Your task to perform on an android device: install app "Cash App" Image 0: 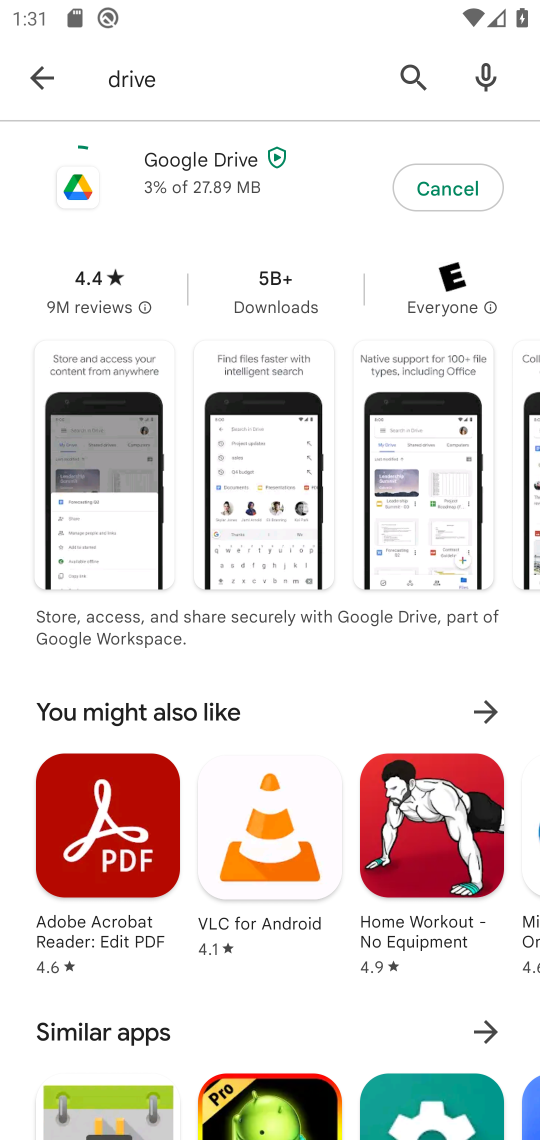
Step 0: click (407, 84)
Your task to perform on an android device: install app "Cash App" Image 1: 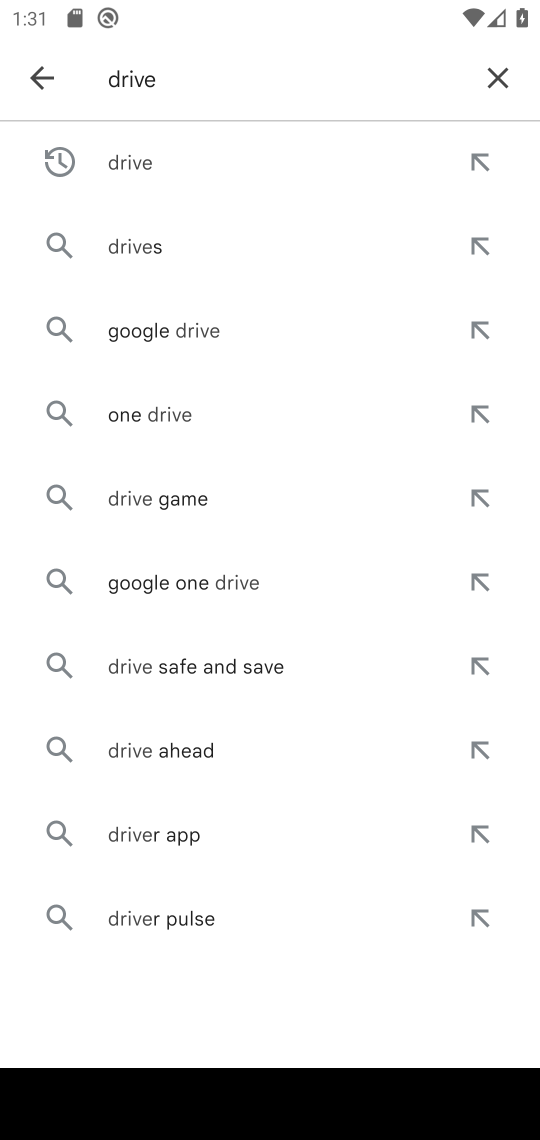
Step 1: click (506, 85)
Your task to perform on an android device: install app "Cash App" Image 2: 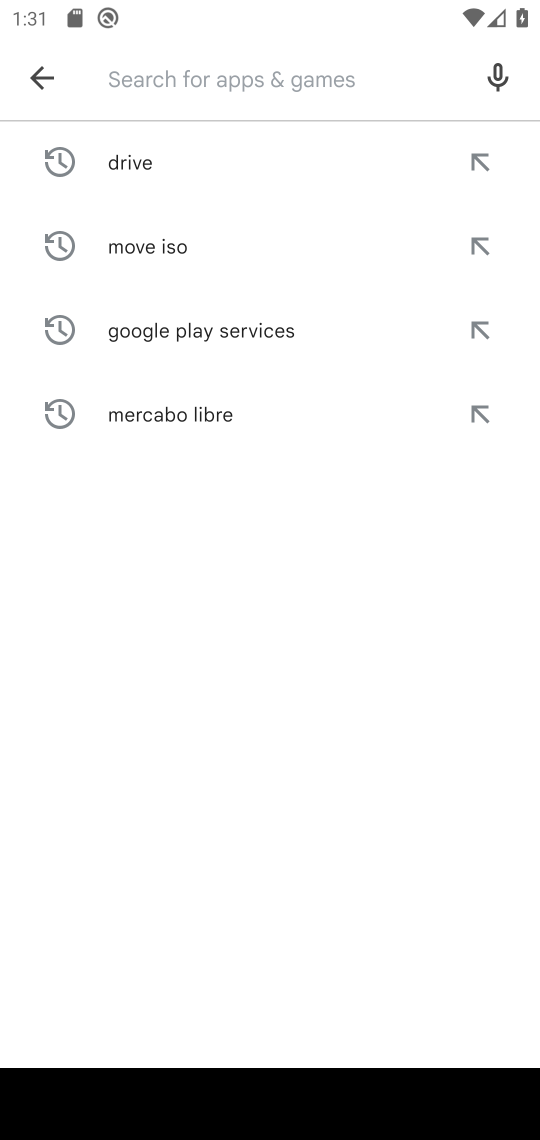
Step 2: type "cash"
Your task to perform on an android device: install app "Cash App" Image 3: 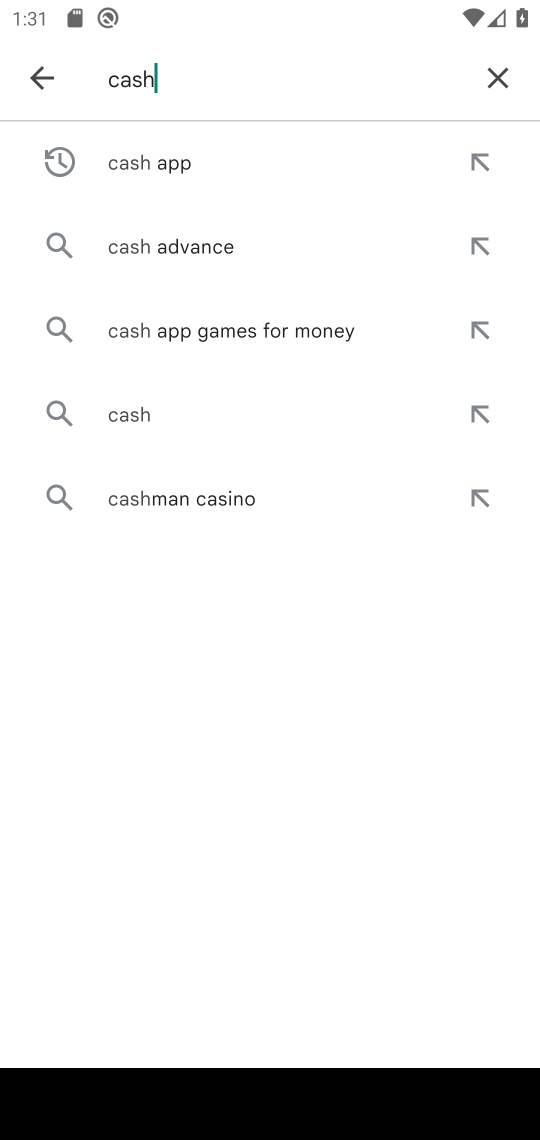
Step 3: click (296, 181)
Your task to perform on an android device: install app "Cash App" Image 4: 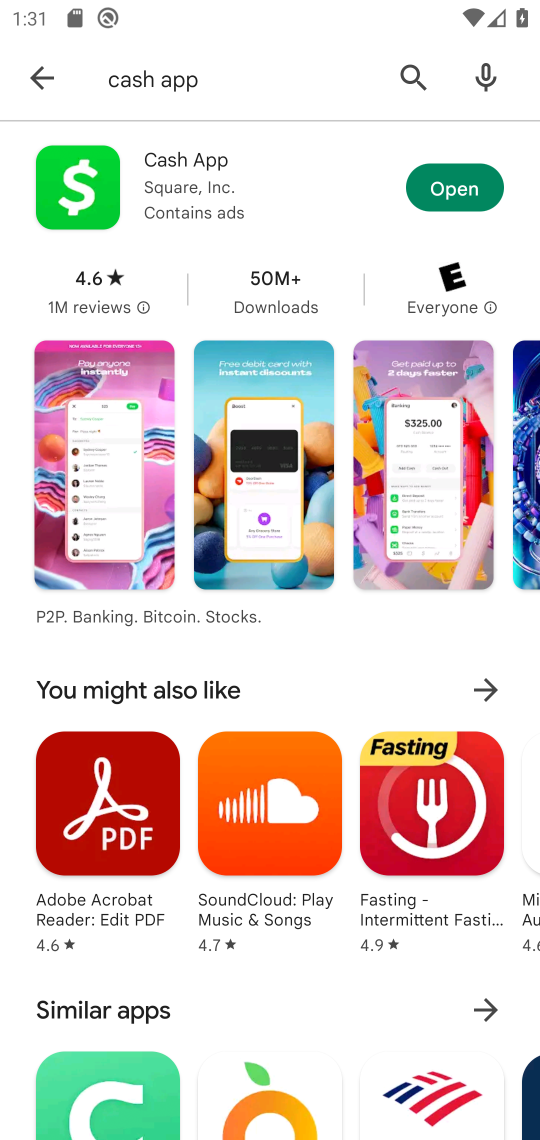
Step 4: click (462, 195)
Your task to perform on an android device: install app "Cash App" Image 5: 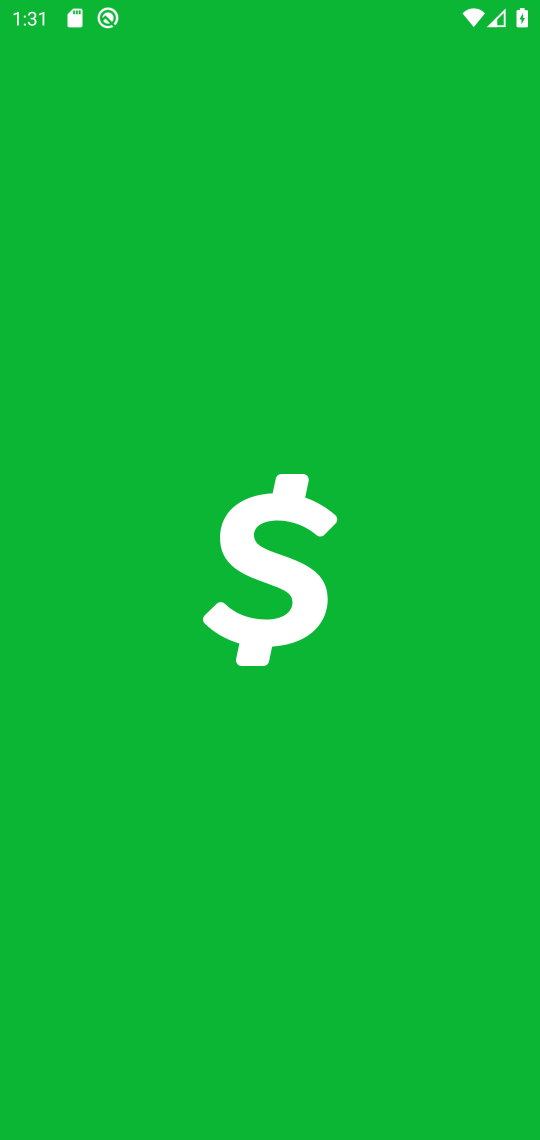
Step 5: task complete